Your task to perform on an android device: Go to Google Image 0: 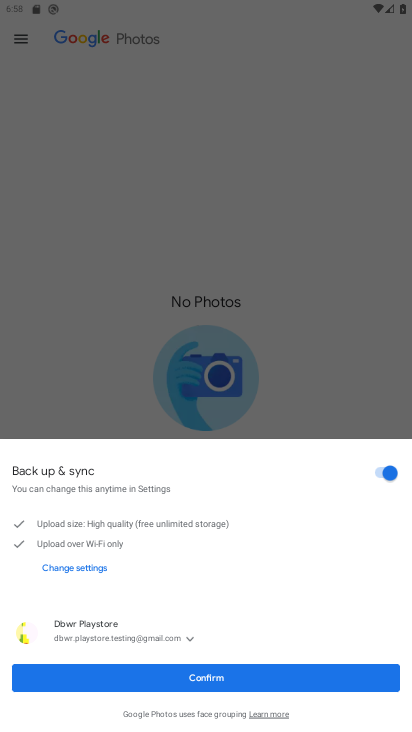
Step 0: press home button
Your task to perform on an android device: Go to Google Image 1: 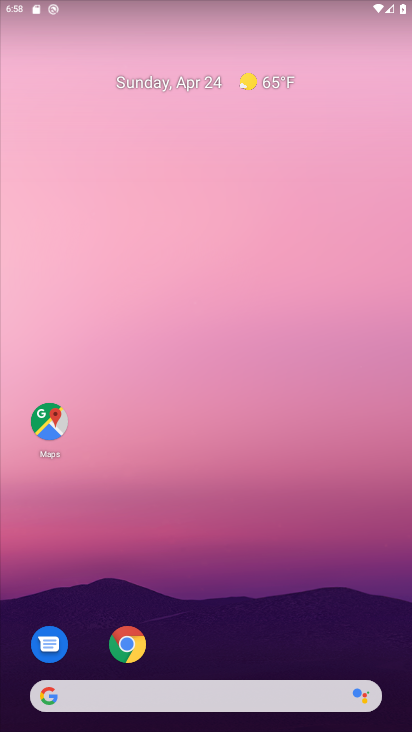
Step 1: drag from (190, 651) to (181, 48)
Your task to perform on an android device: Go to Google Image 2: 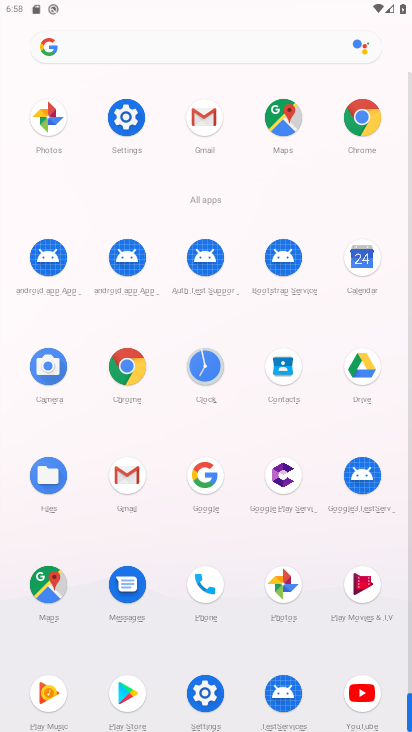
Step 2: click (201, 473)
Your task to perform on an android device: Go to Google Image 3: 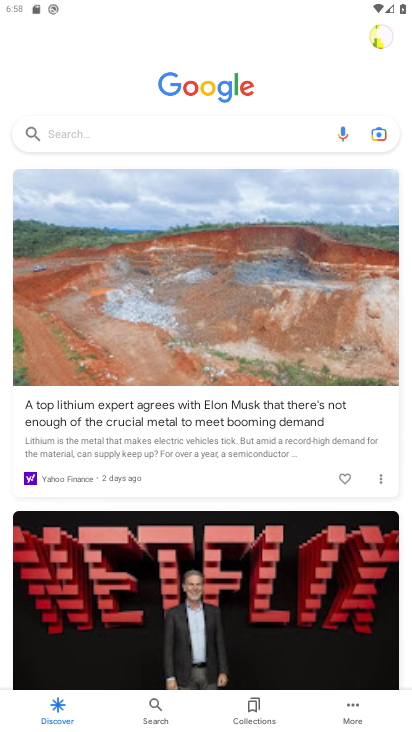
Step 3: task complete